Your task to perform on an android device: Search for seafood restaurants on Google Maps Image 0: 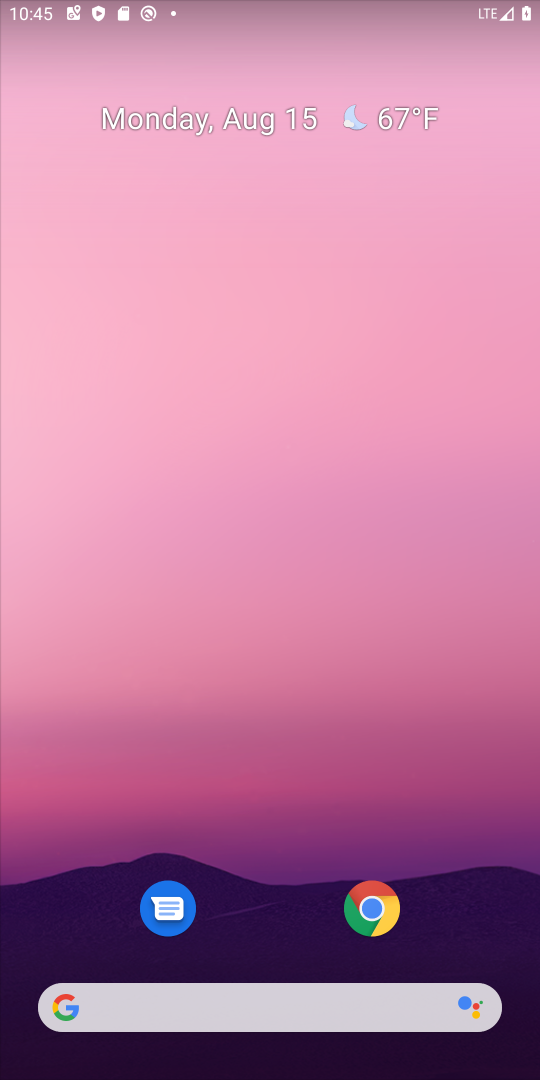
Step 0: drag from (295, 921) to (266, 206)
Your task to perform on an android device: Search for seafood restaurants on Google Maps Image 1: 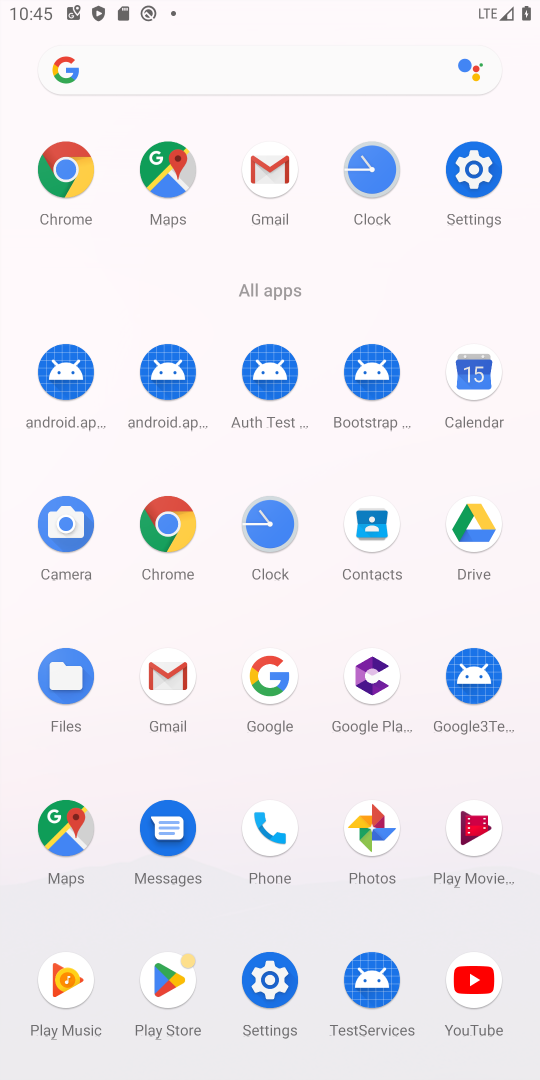
Step 1: click (182, 159)
Your task to perform on an android device: Search for seafood restaurants on Google Maps Image 2: 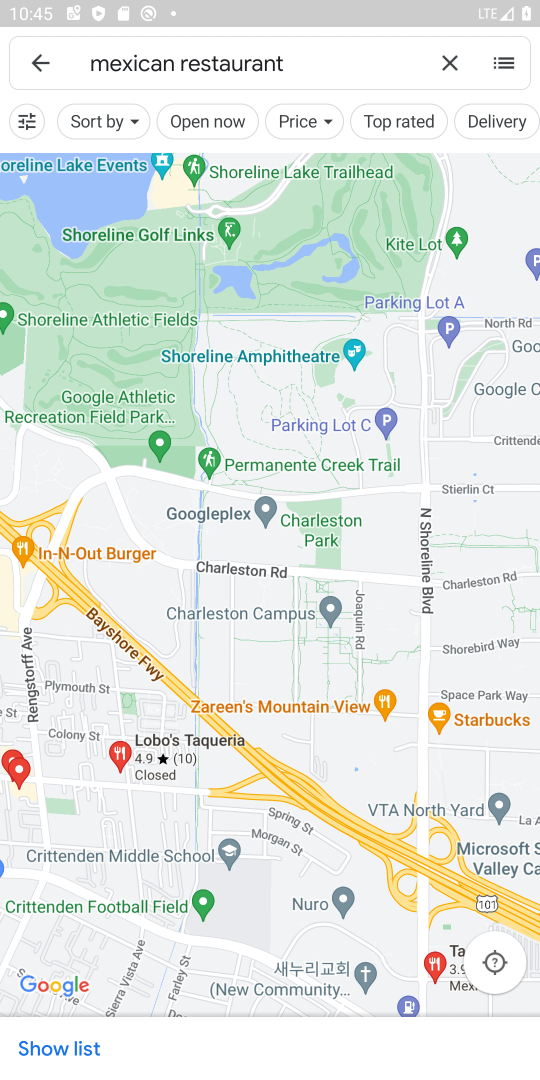
Step 2: click (438, 85)
Your task to perform on an android device: Search for seafood restaurants on Google Maps Image 3: 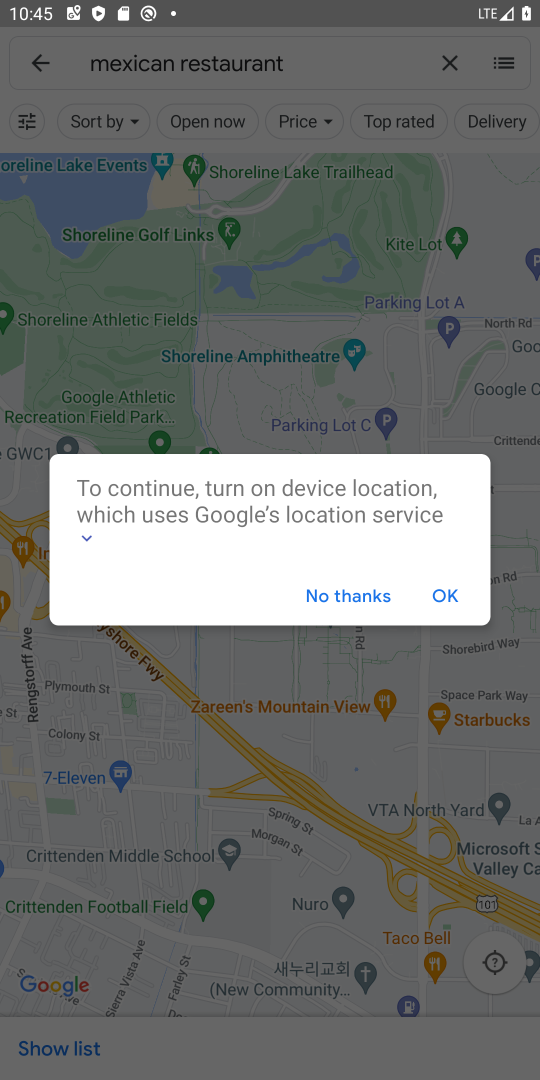
Step 3: click (454, 68)
Your task to perform on an android device: Search for seafood restaurants on Google Maps Image 4: 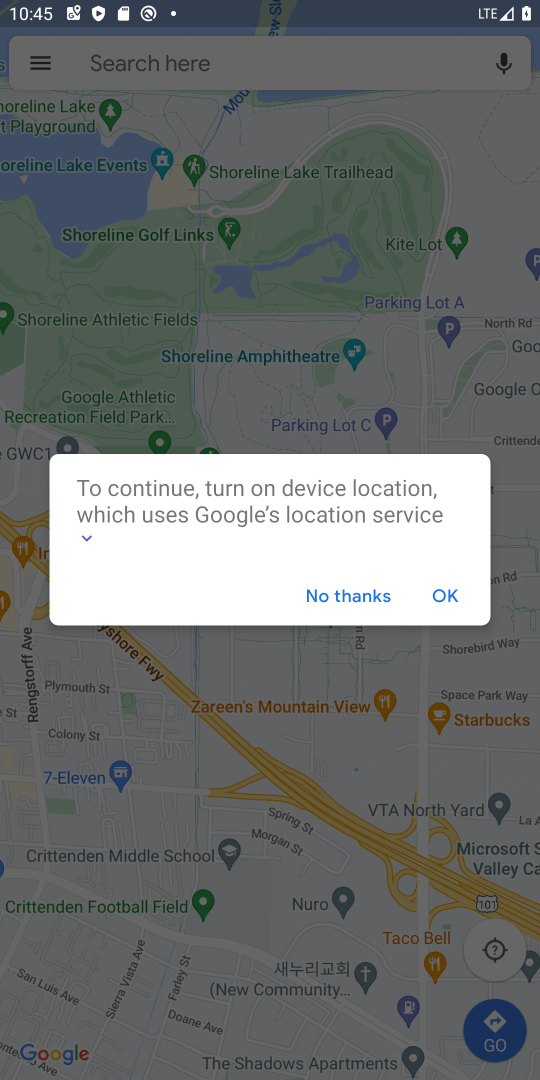
Step 4: click (457, 602)
Your task to perform on an android device: Search for seafood restaurants on Google Maps Image 5: 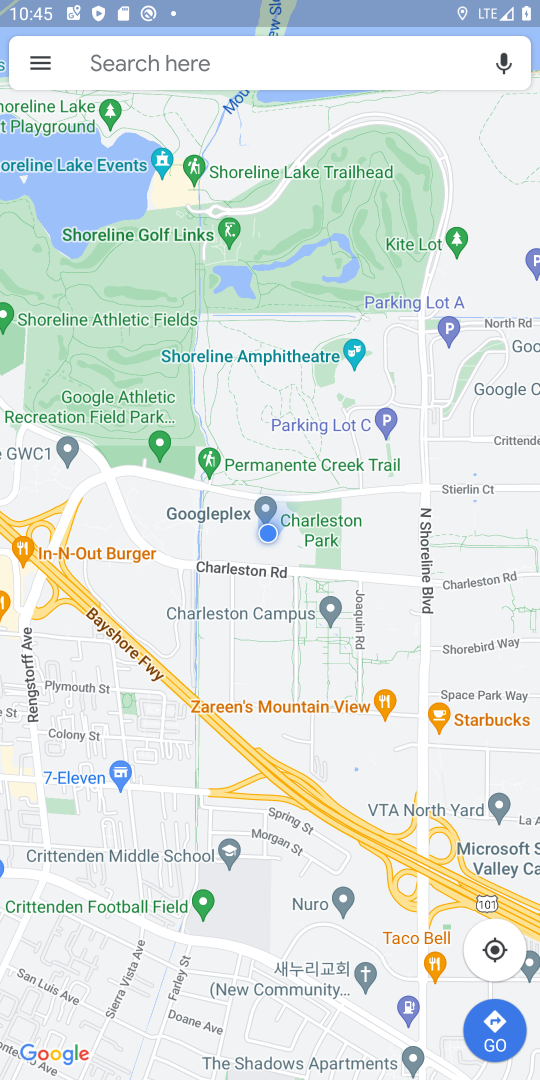
Step 5: click (252, 64)
Your task to perform on an android device: Search for seafood restaurants on Google Maps Image 6: 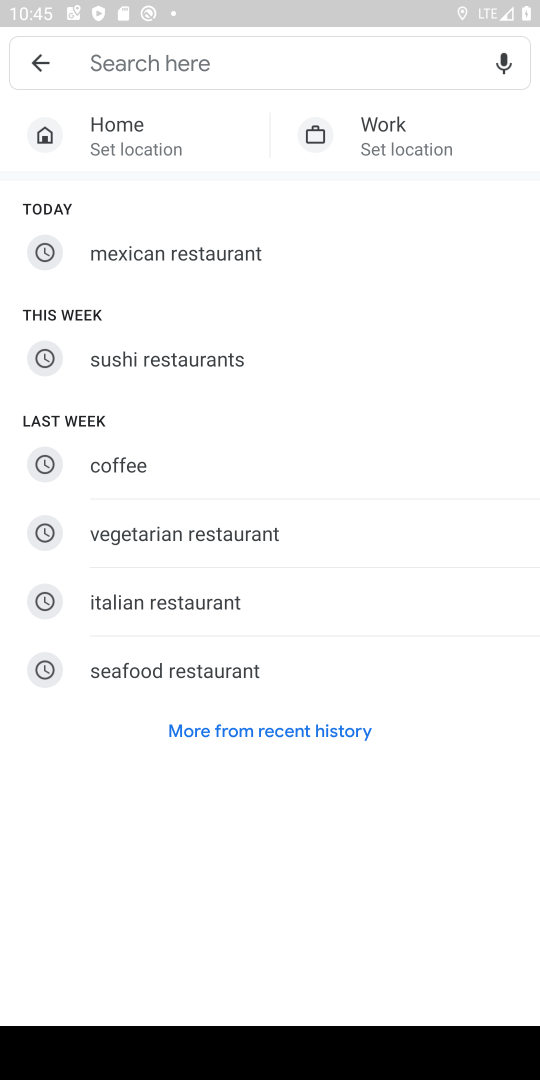
Step 6: click (174, 674)
Your task to perform on an android device: Search for seafood restaurants on Google Maps Image 7: 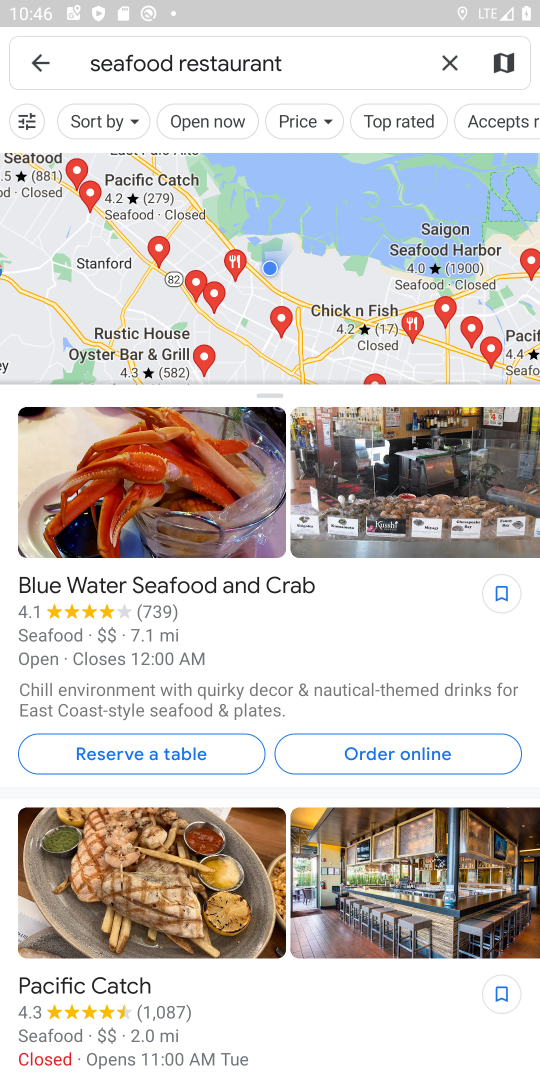
Step 7: task complete